Your task to perform on an android device: open app "Truecaller" (install if not already installed), go to login, and select forgot password Image 0: 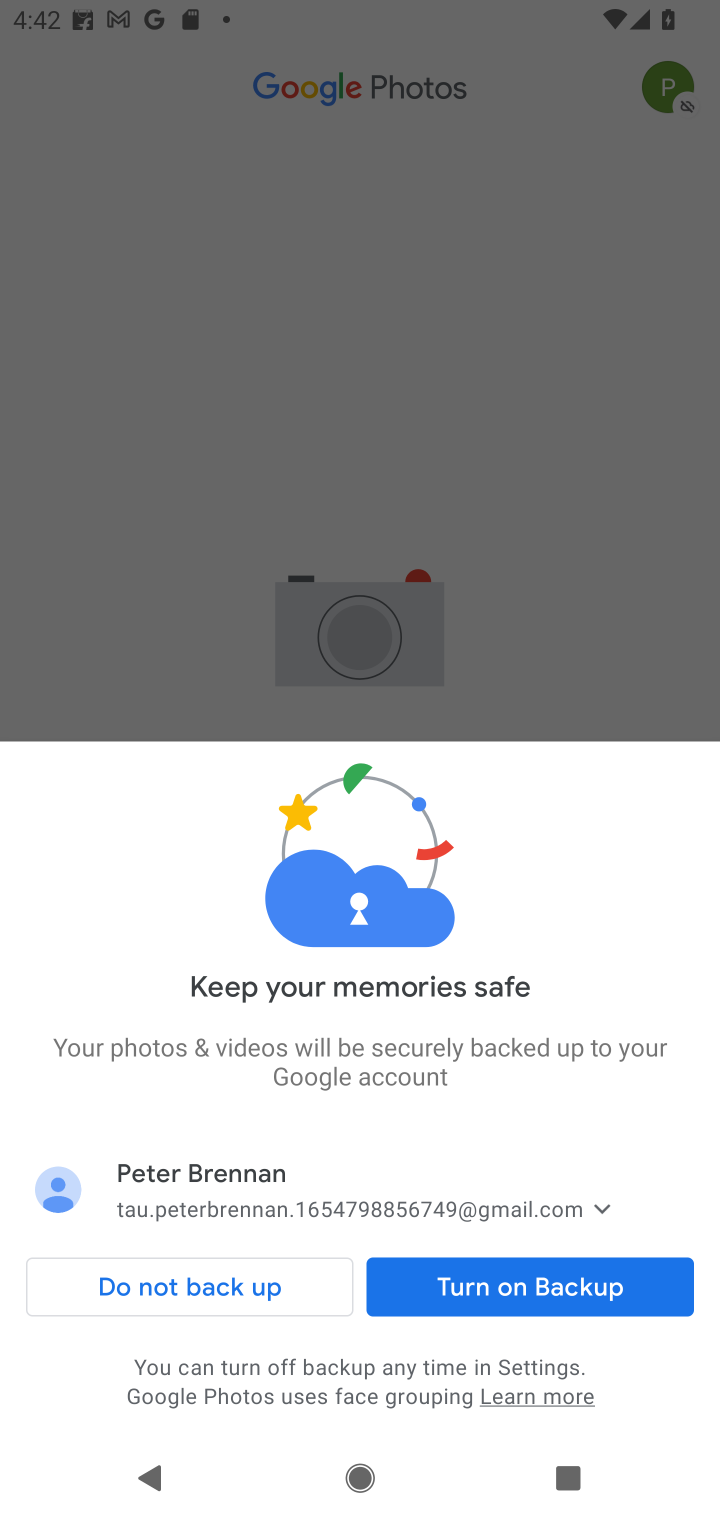
Step 0: press home button
Your task to perform on an android device: open app "Truecaller" (install if not already installed), go to login, and select forgot password Image 1: 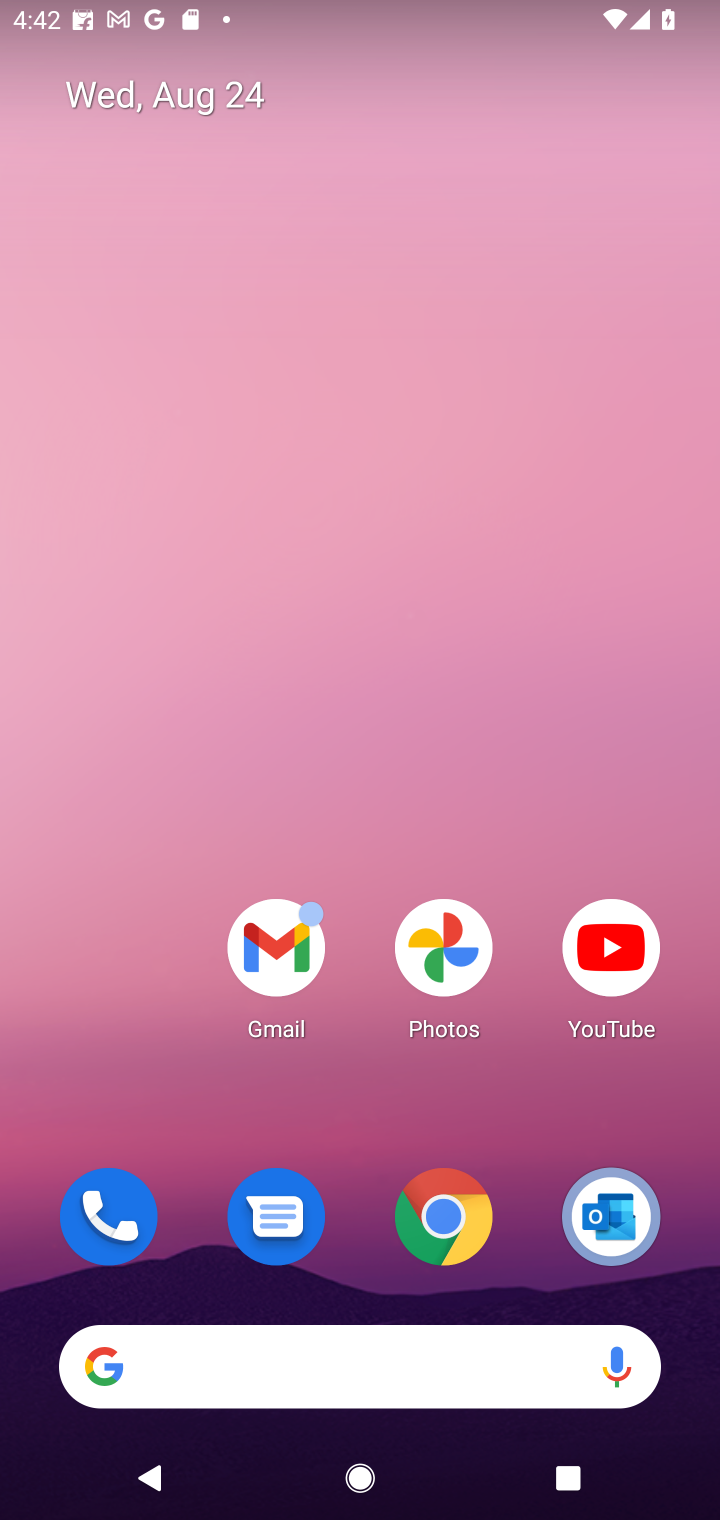
Step 1: drag from (334, 1107) to (420, 230)
Your task to perform on an android device: open app "Truecaller" (install if not already installed), go to login, and select forgot password Image 2: 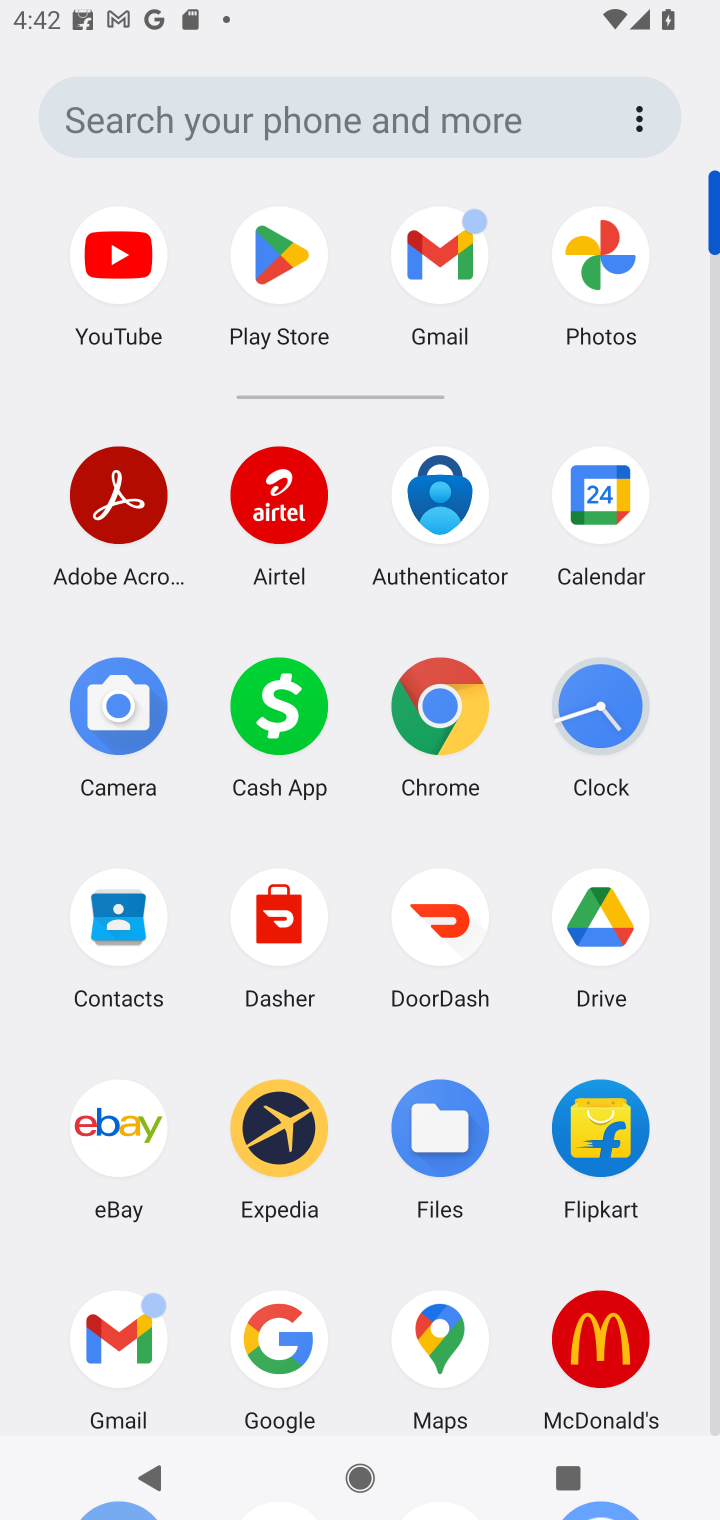
Step 2: click (236, 233)
Your task to perform on an android device: open app "Truecaller" (install if not already installed), go to login, and select forgot password Image 3: 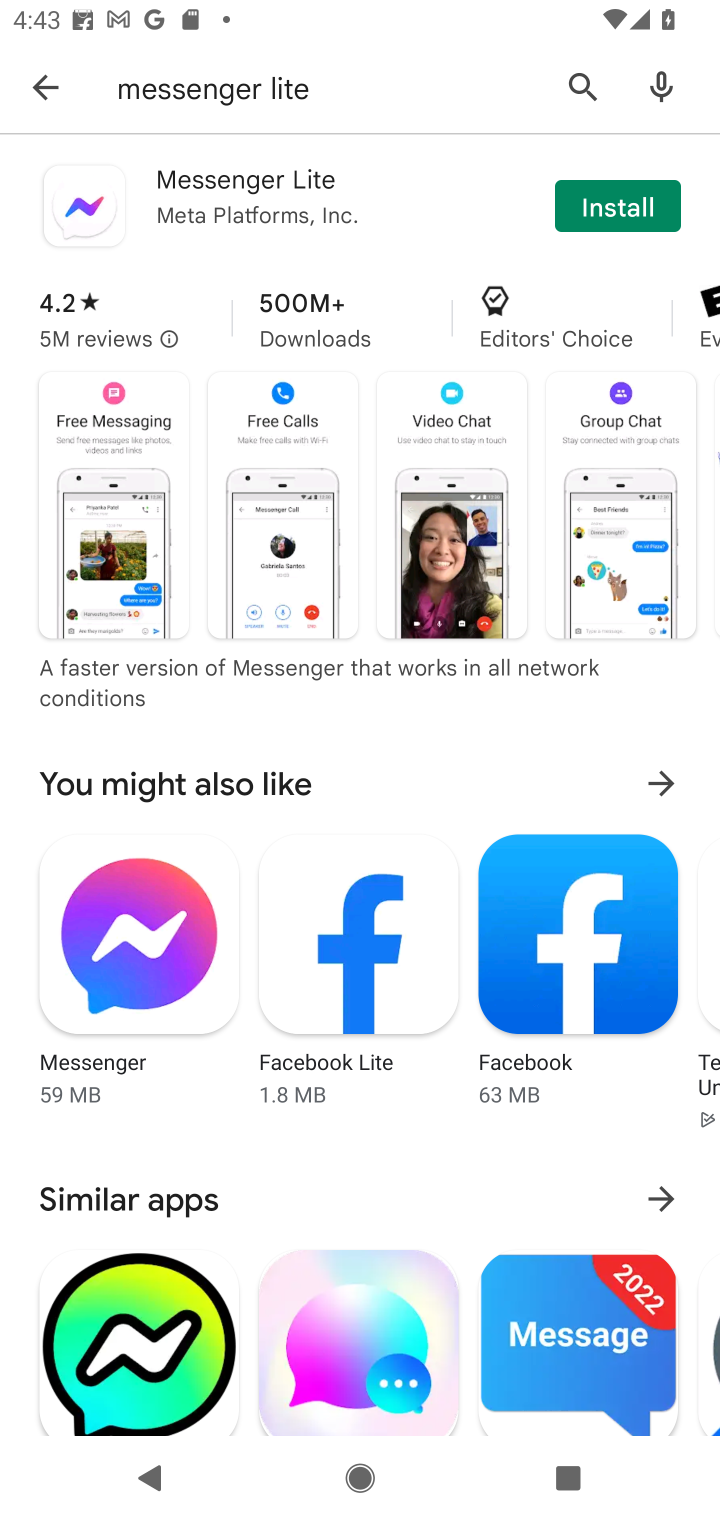
Step 3: click (575, 80)
Your task to perform on an android device: open app "Truecaller" (install if not already installed), go to login, and select forgot password Image 4: 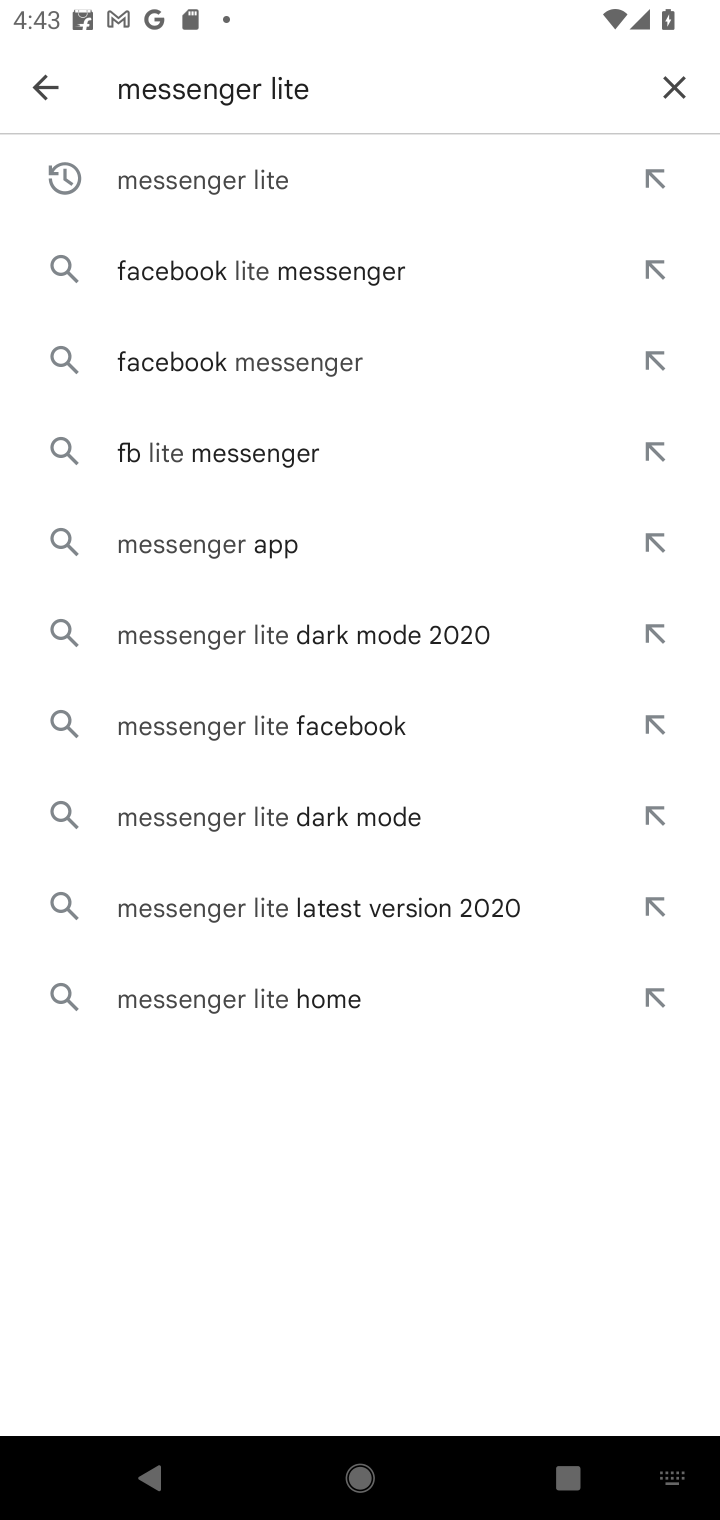
Step 4: click (660, 85)
Your task to perform on an android device: open app "Truecaller" (install if not already installed), go to login, and select forgot password Image 5: 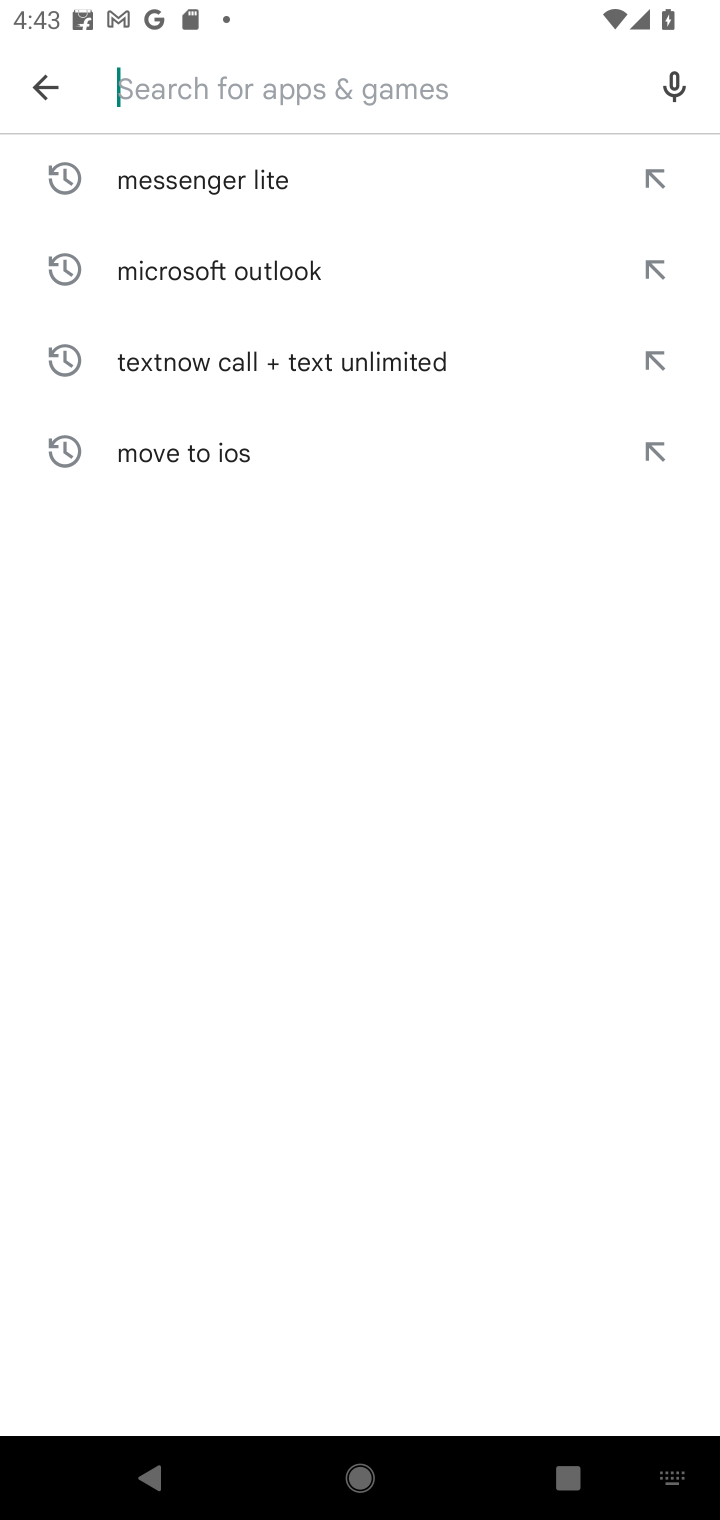
Step 5: type "Truecaller"
Your task to perform on an android device: open app "Truecaller" (install if not already installed), go to login, and select forgot password Image 6: 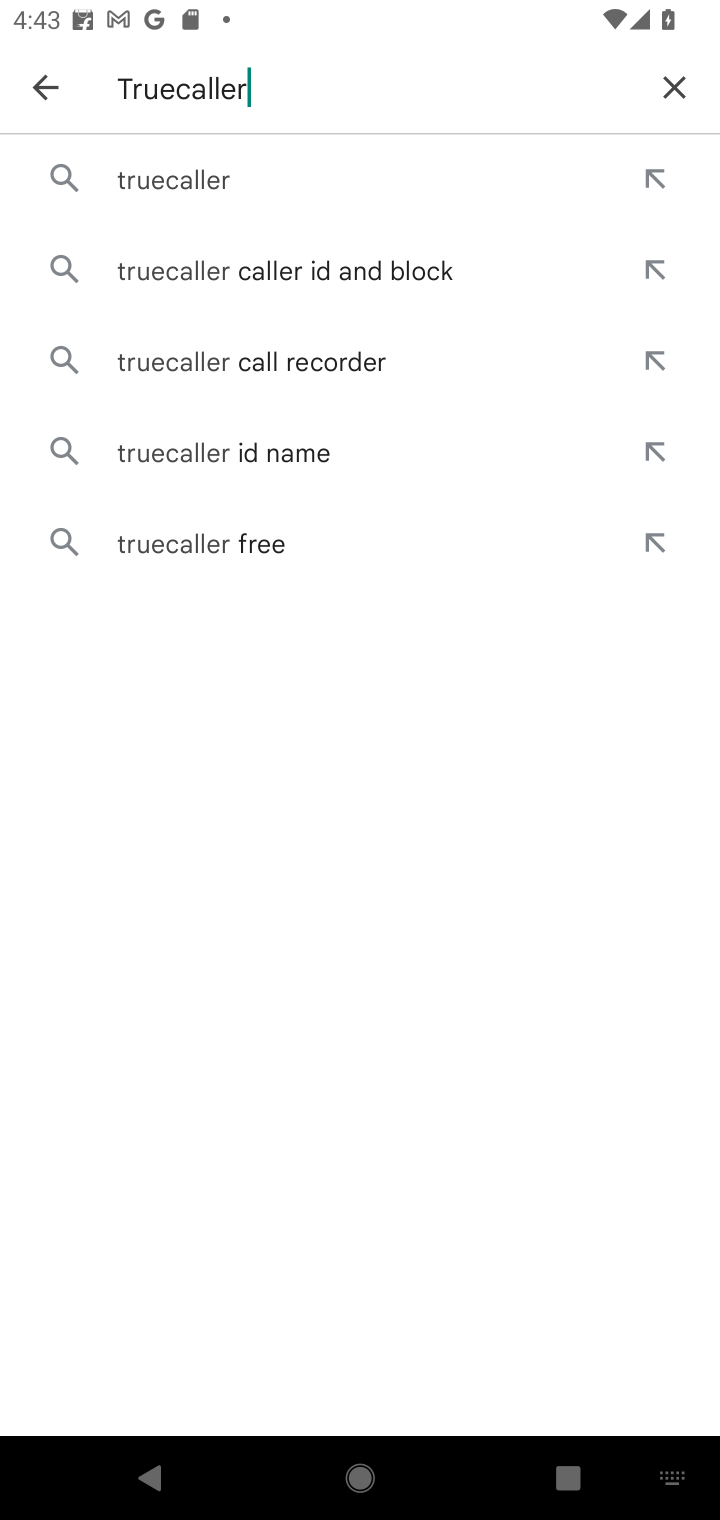
Step 6: click (137, 188)
Your task to perform on an android device: open app "Truecaller" (install if not already installed), go to login, and select forgot password Image 7: 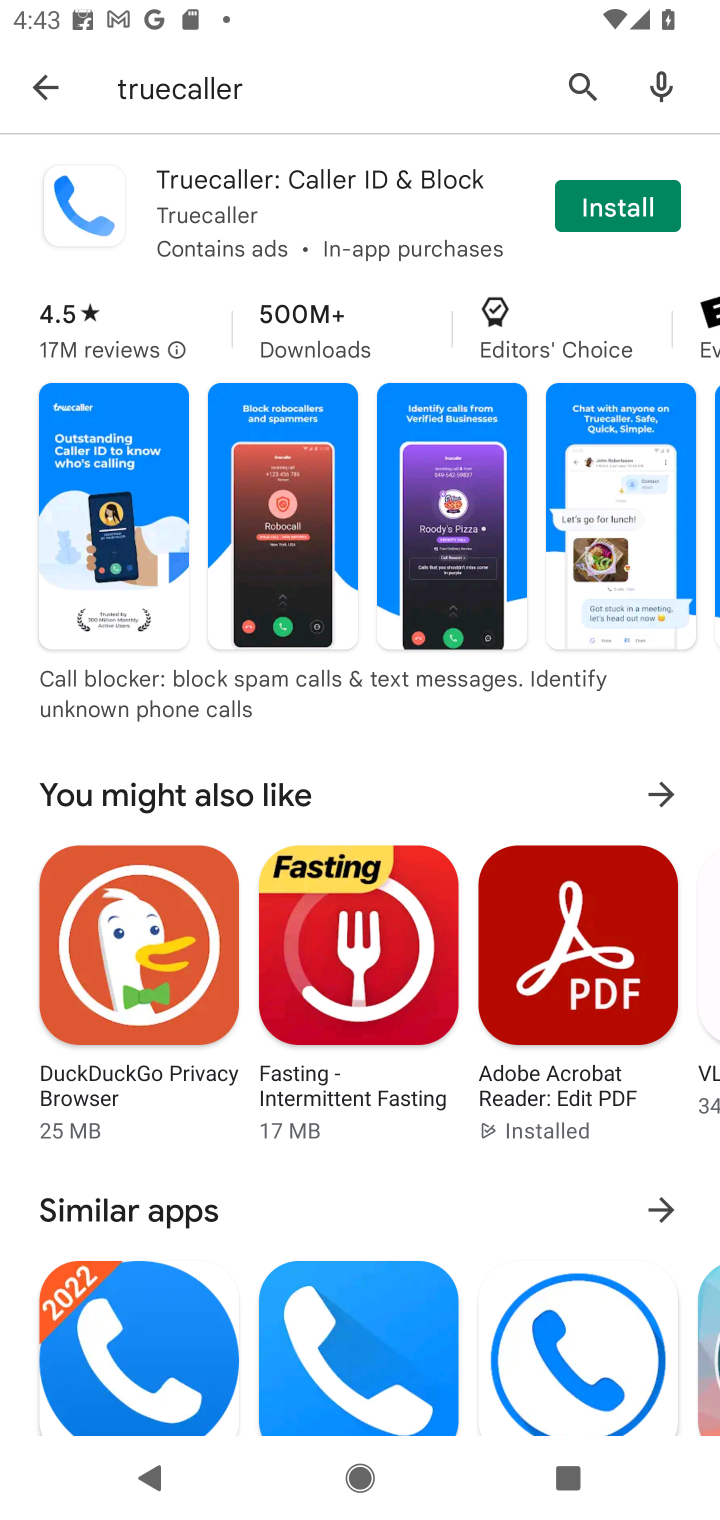
Step 7: click (603, 203)
Your task to perform on an android device: open app "Truecaller" (install if not already installed), go to login, and select forgot password Image 8: 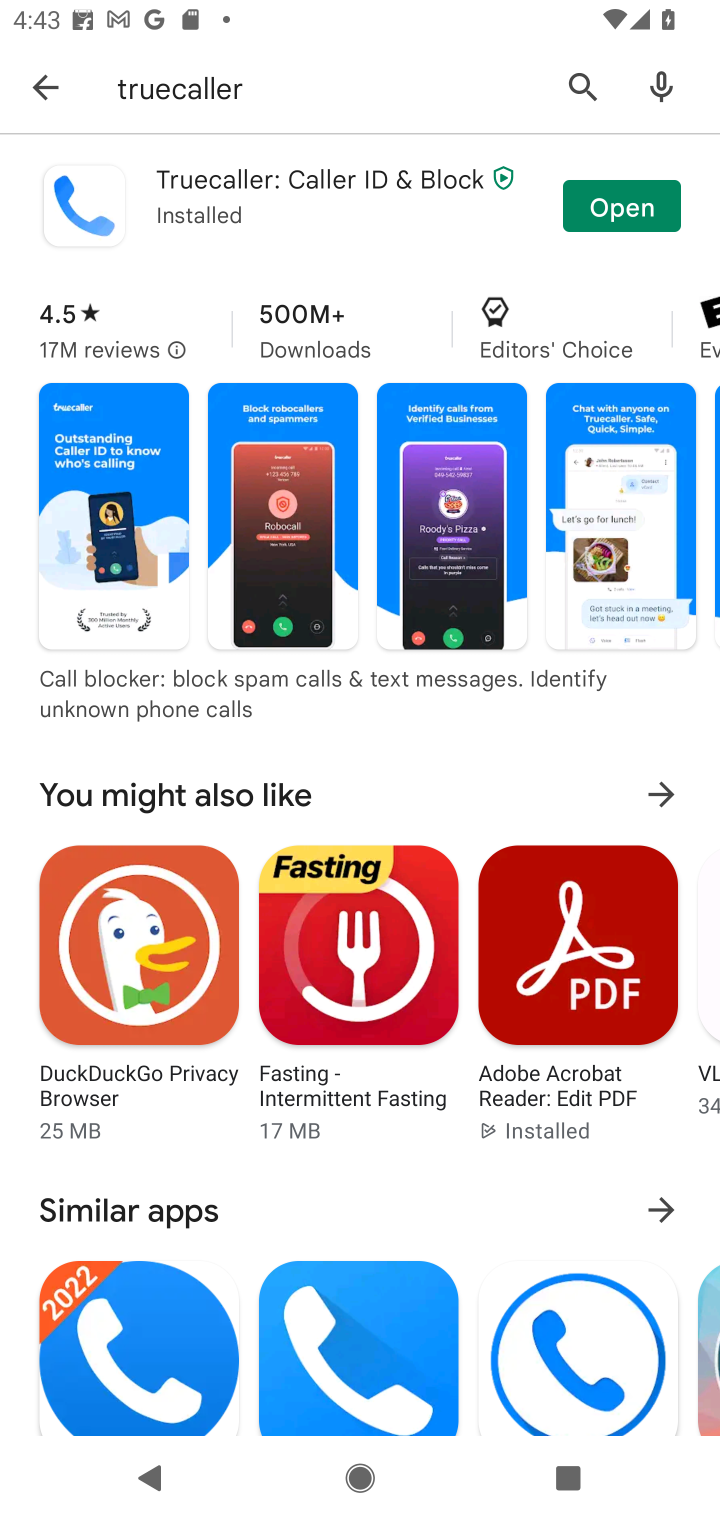
Step 8: click (634, 207)
Your task to perform on an android device: open app "Truecaller" (install if not already installed), go to login, and select forgot password Image 9: 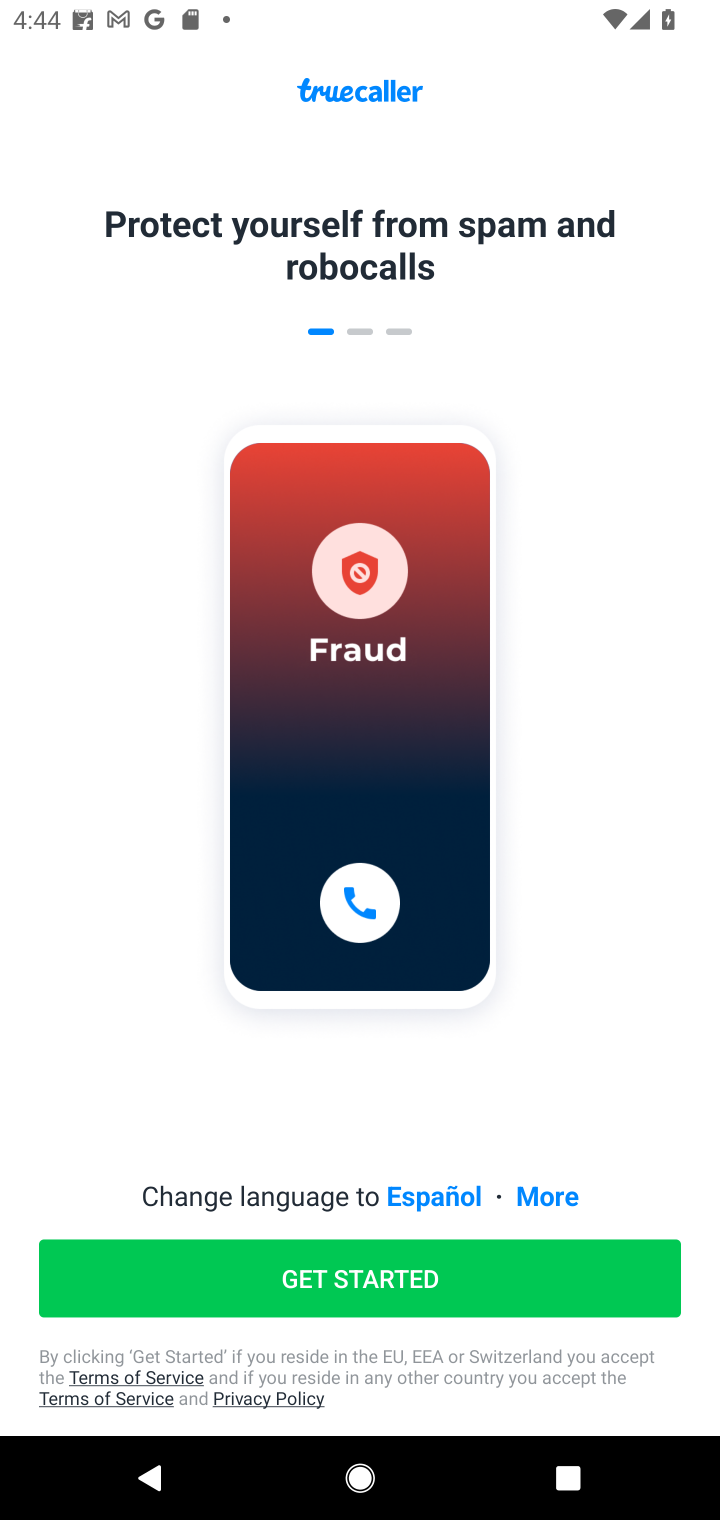
Step 9: task complete